Your task to perform on an android device: set the stopwatch Image 0: 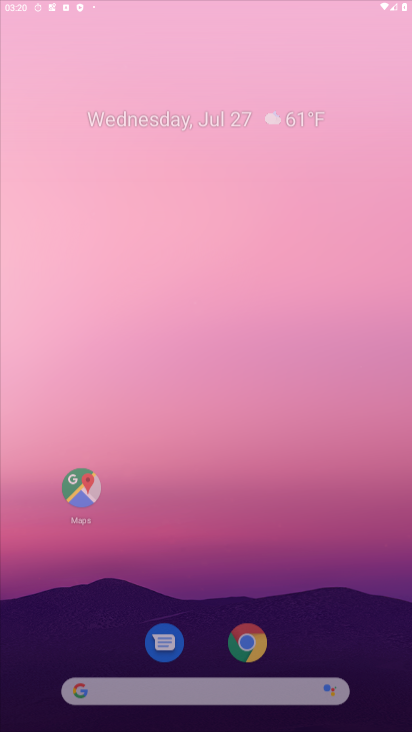
Step 0: drag from (255, 703) to (295, 1)
Your task to perform on an android device: set the stopwatch Image 1: 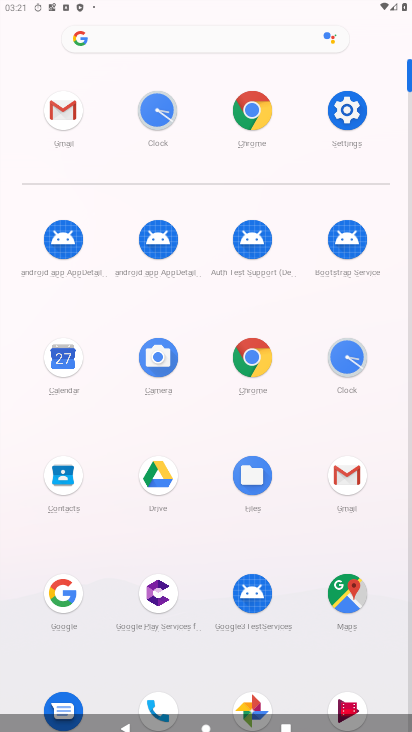
Step 1: click (353, 597)
Your task to perform on an android device: set the stopwatch Image 2: 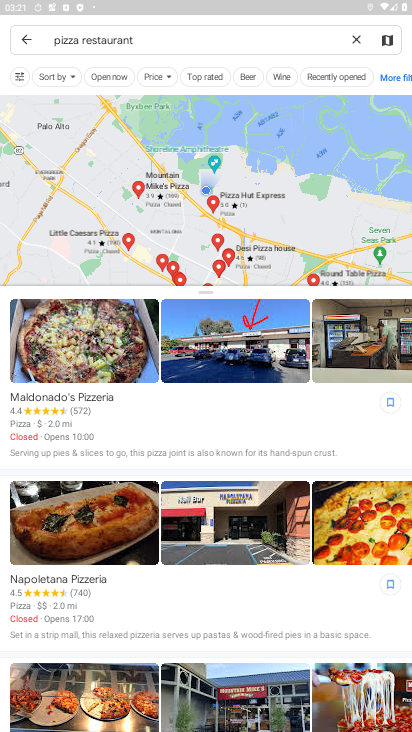
Step 2: press home button
Your task to perform on an android device: set the stopwatch Image 3: 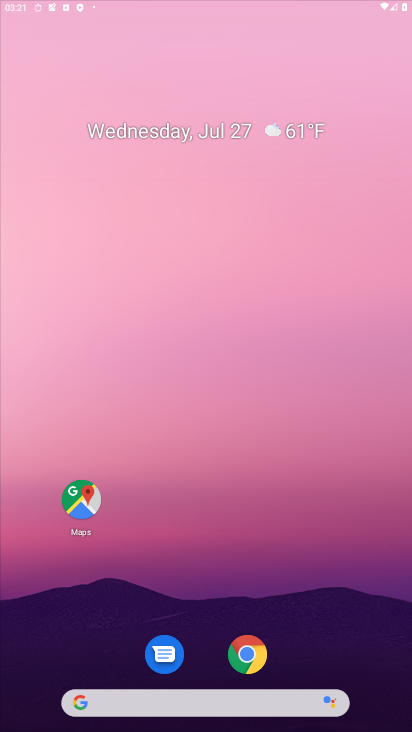
Step 3: drag from (244, 520) to (204, 71)
Your task to perform on an android device: set the stopwatch Image 4: 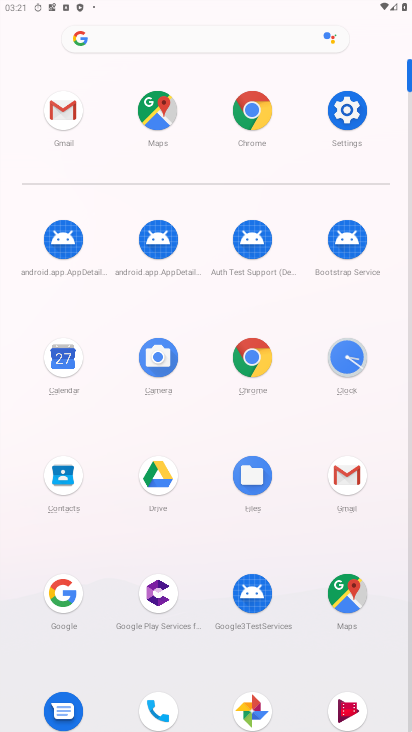
Step 4: click (346, 338)
Your task to perform on an android device: set the stopwatch Image 5: 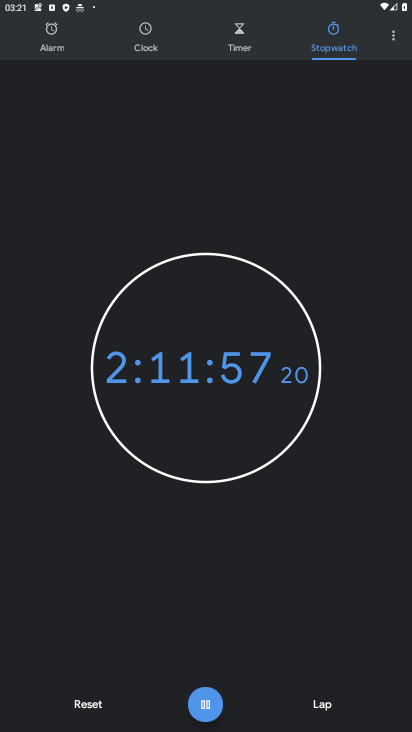
Step 5: task complete